Your task to perform on an android device: search for starred emails in the gmail app Image 0: 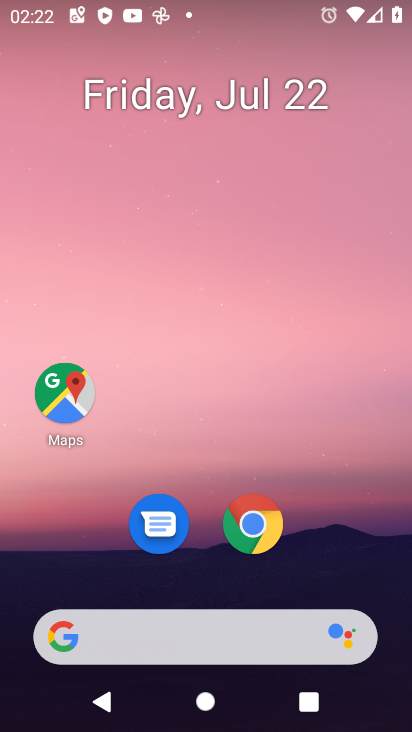
Step 0: press home button
Your task to perform on an android device: search for starred emails in the gmail app Image 1: 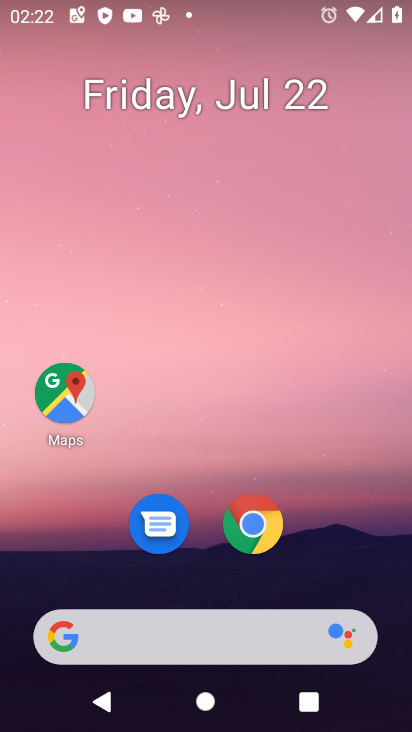
Step 1: drag from (209, 636) to (342, 177)
Your task to perform on an android device: search for starred emails in the gmail app Image 2: 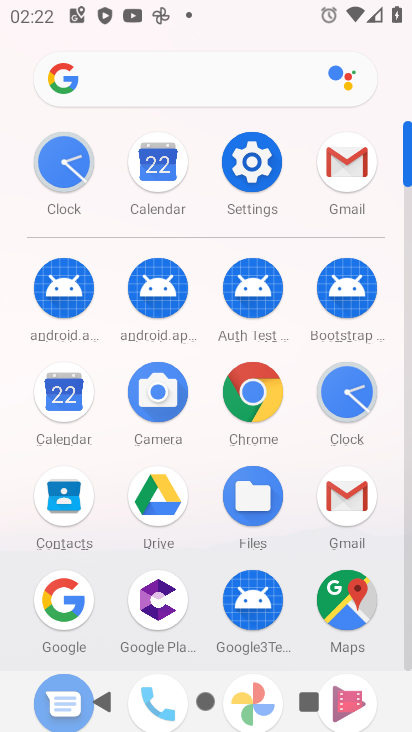
Step 2: click (344, 163)
Your task to perform on an android device: search for starred emails in the gmail app Image 3: 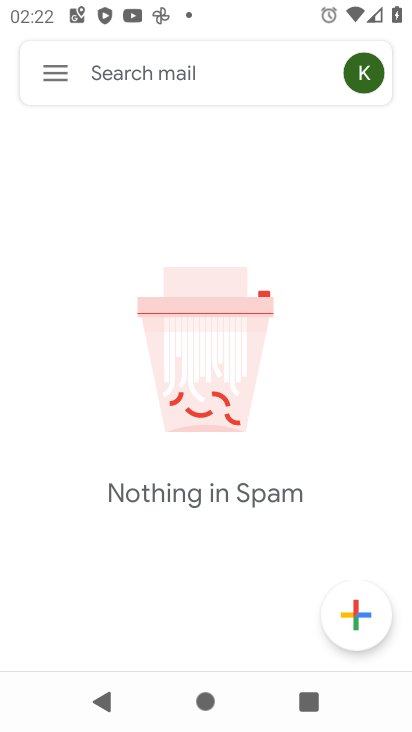
Step 3: click (47, 71)
Your task to perform on an android device: search for starred emails in the gmail app Image 4: 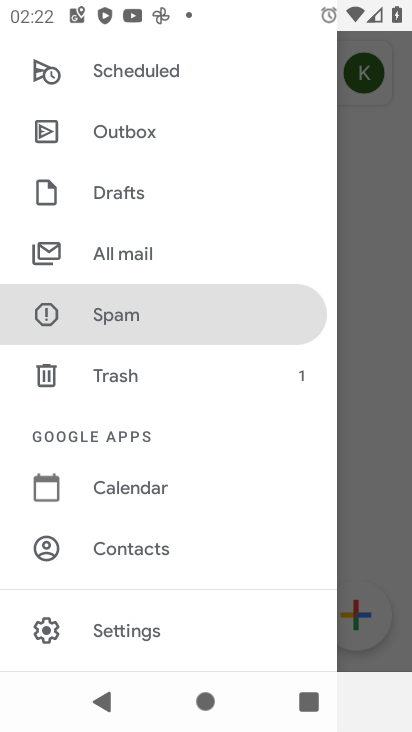
Step 4: drag from (214, 149) to (114, 616)
Your task to perform on an android device: search for starred emails in the gmail app Image 5: 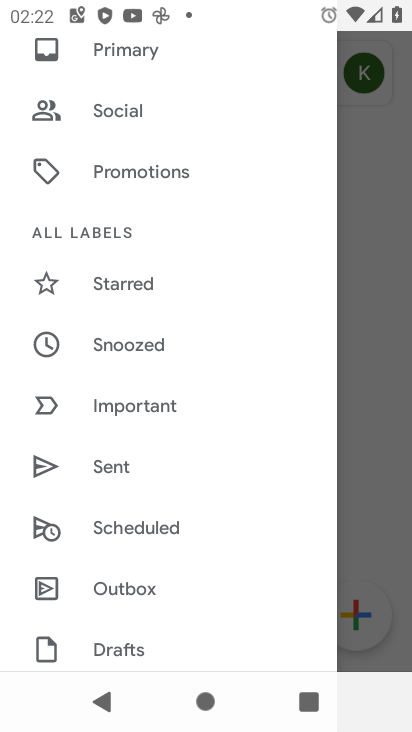
Step 5: click (140, 287)
Your task to perform on an android device: search for starred emails in the gmail app Image 6: 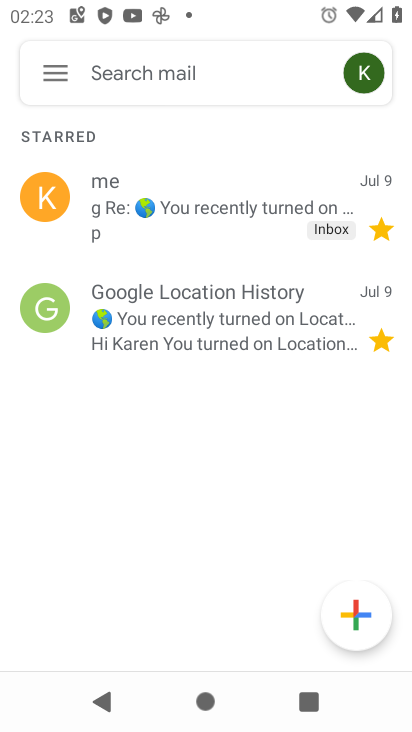
Step 6: task complete